Your task to perform on an android device: Do I have any events today? Image 0: 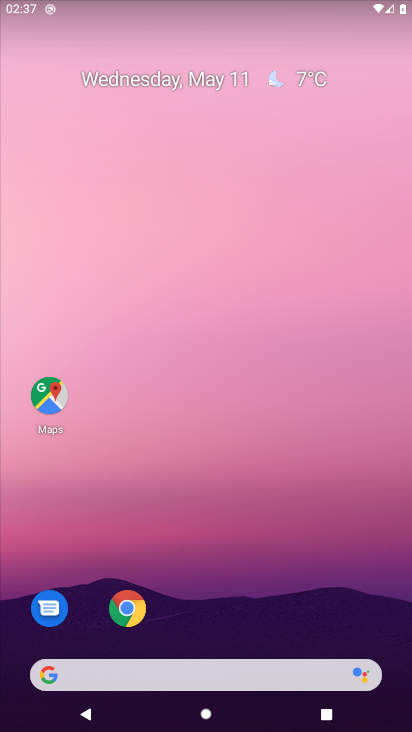
Step 0: drag from (201, 619) to (301, 21)
Your task to perform on an android device: Do I have any events today? Image 1: 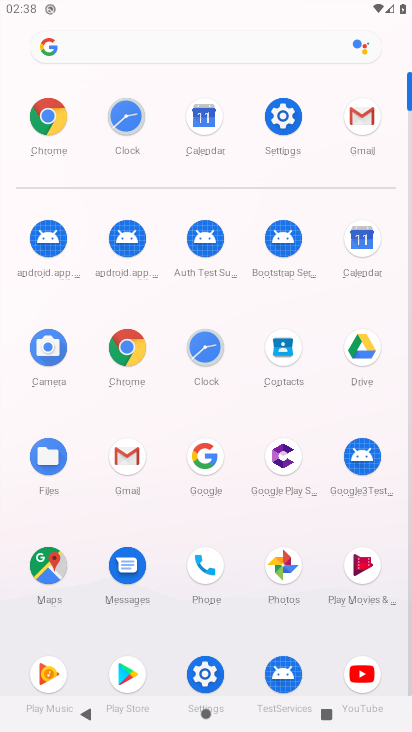
Step 1: click (363, 236)
Your task to perform on an android device: Do I have any events today? Image 2: 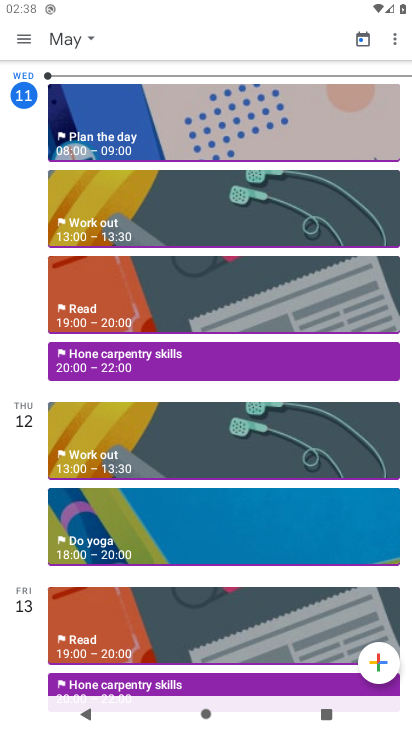
Step 2: click (27, 288)
Your task to perform on an android device: Do I have any events today? Image 3: 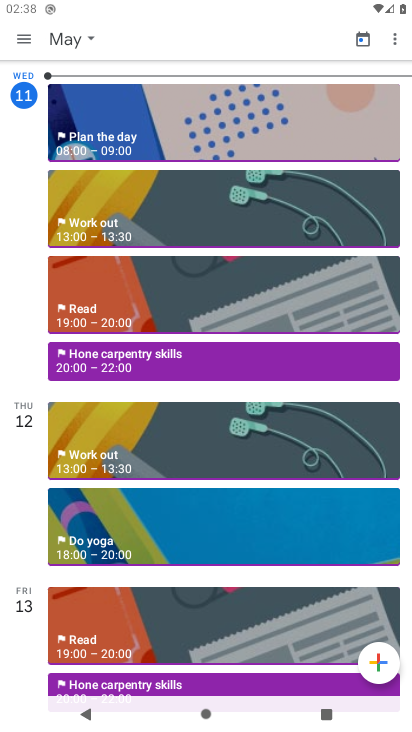
Step 3: click (18, 148)
Your task to perform on an android device: Do I have any events today? Image 4: 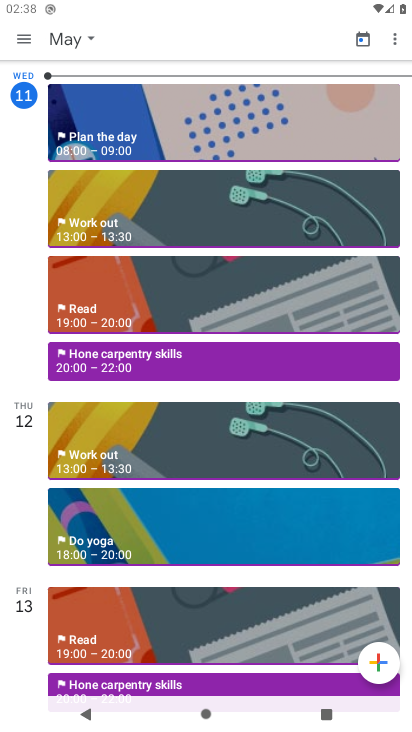
Step 4: click (32, 135)
Your task to perform on an android device: Do I have any events today? Image 5: 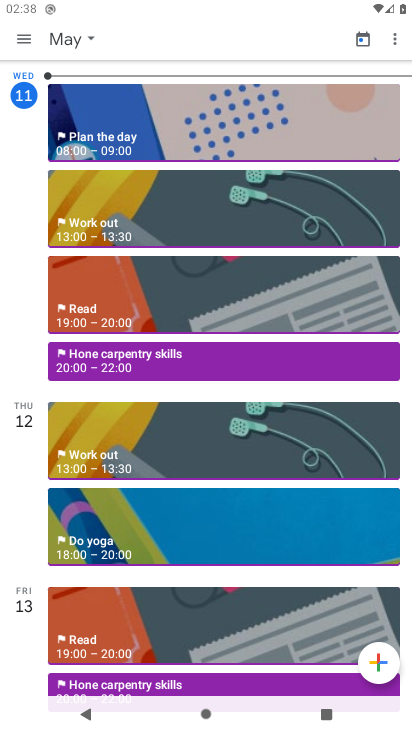
Step 5: click (23, 32)
Your task to perform on an android device: Do I have any events today? Image 6: 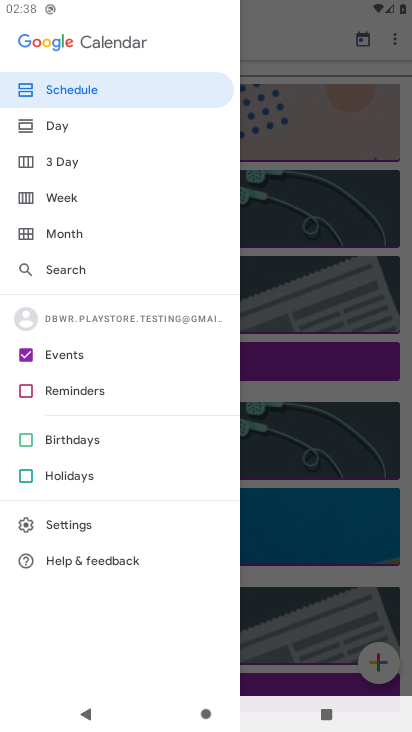
Step 6: click (62, 129)
Your task to perform on an android device: Do I have any events today? Image 7: 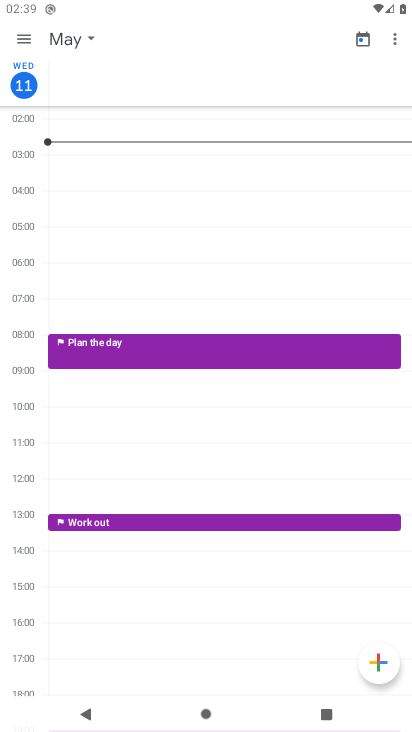
Step 7: task complete